Your task to perform on an android device: Toggle the flashlight Image 0: 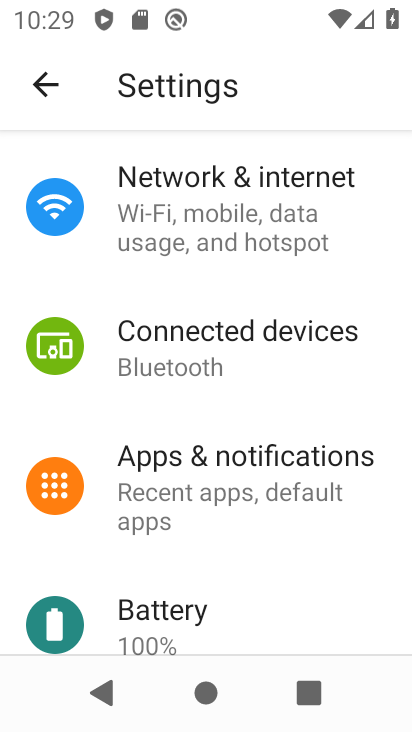
Step 0: click (45, 87)
Your task to perform on an android device: Toggle the flashlight Image 1: 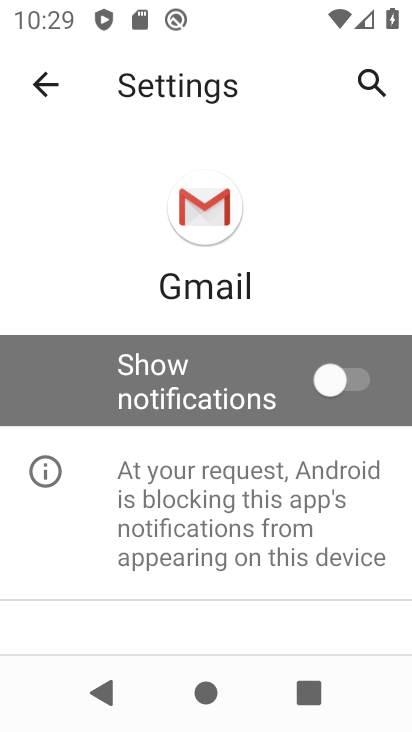
Step 1: click (14, 79)
Your task to perform on an android device: Toggle the flashlight Image 2: 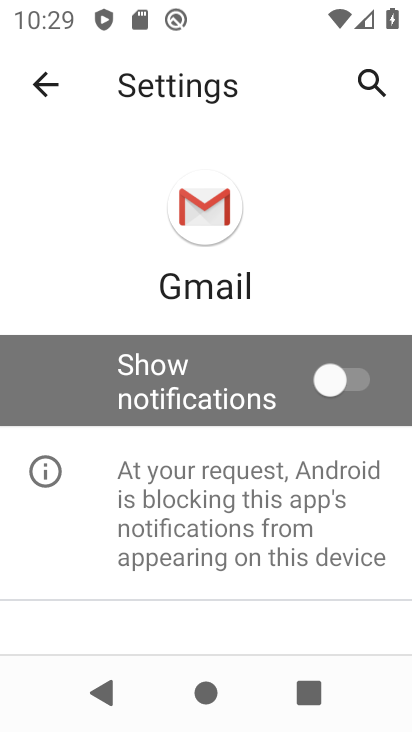
Step 2: press back button
Your task to perform on an android device: Toggle the flashlight Image 3: 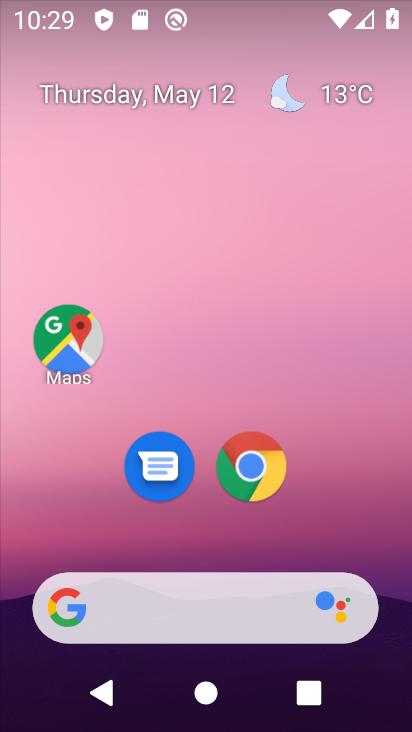
Step 3: drag from (202, 552) to (282, 12)
Your task to perform on an android device: Toggle the flashlight Image 4: 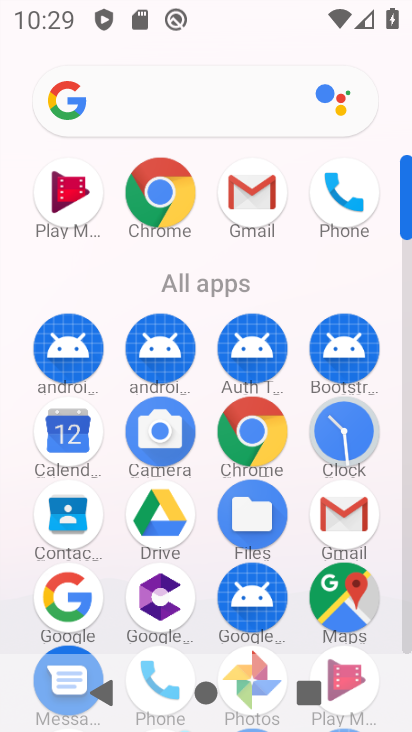
Step 4: drag from (186, 551) to (232, 106)
Your task to perform on an android device: Toggle the flashlight Image 5: 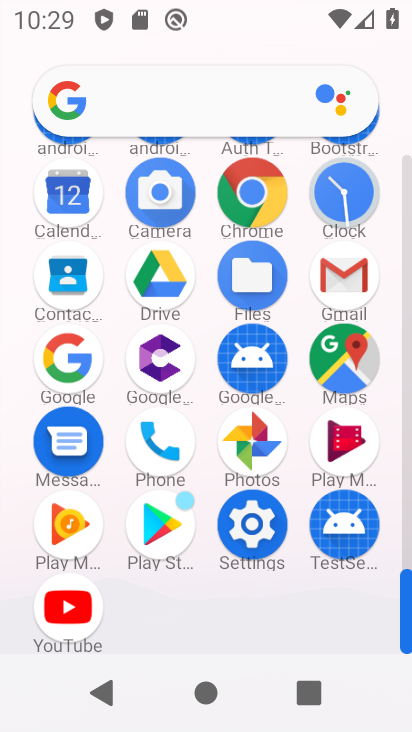
Step 5: click (263, 539)
Your task to perform on an android device: Toggle the flashlight Image 6: 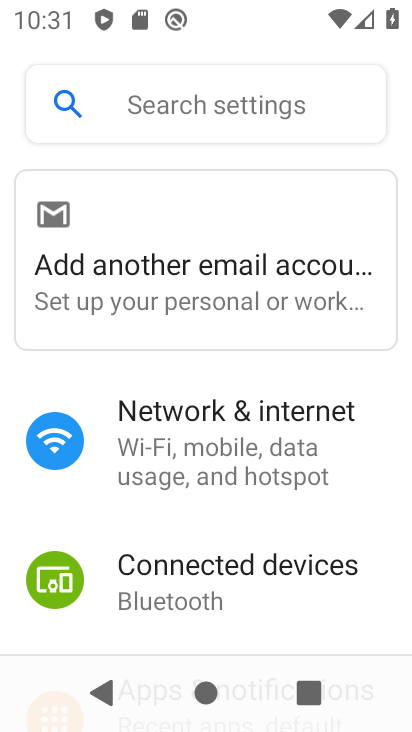
Step 6: click (170, 97)
Your task to perform on an android device: Toggle the flashlight Image 7: 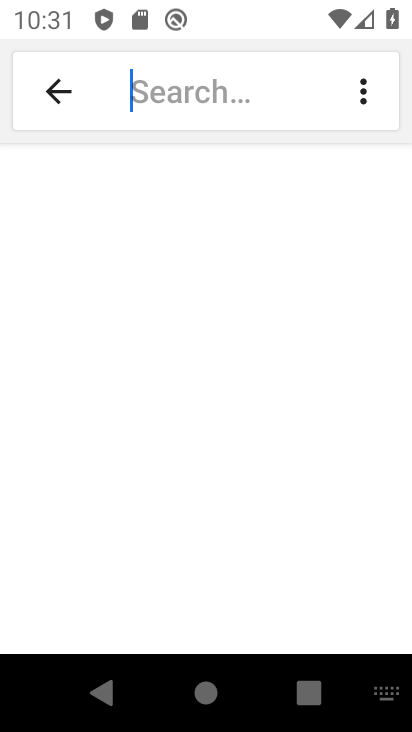
Step 7: type "flashlight"
Your task to perform on an android device: Toggle the flashlight Image 8: 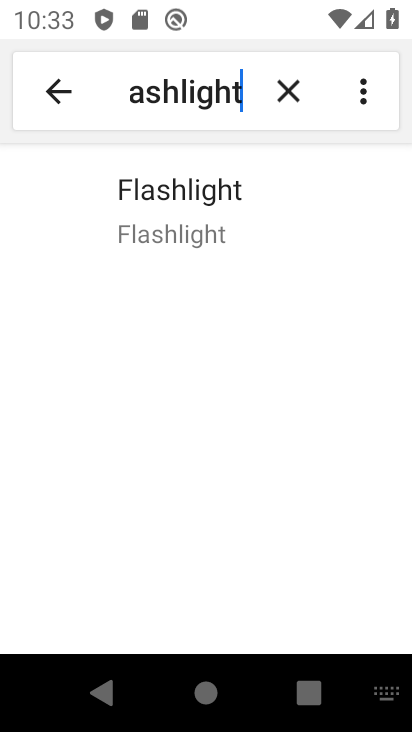
Step 8: click (160, 212)
Your task to perform on an android device: Toggle the flashlight Image 9: 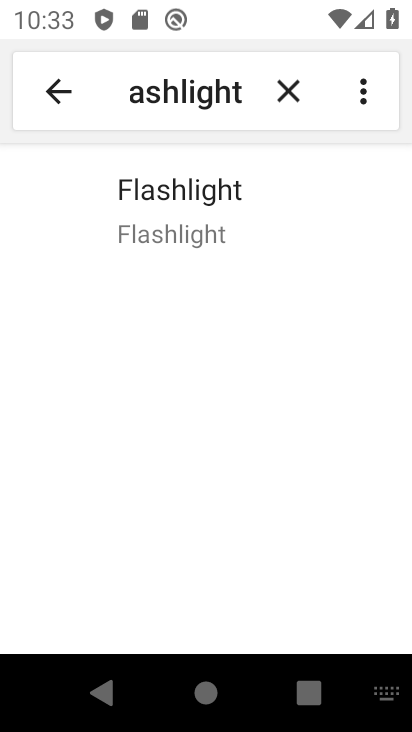
Step 9: task complete